Your task to perform on an android device: toggle priority inbox in the gmail app Image 0: 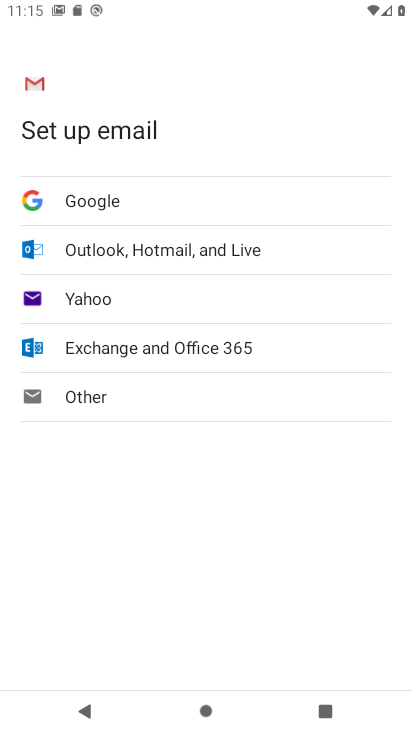
Step 0: press home button
Your task to perform on an android device: toggle priority inbox in the gmail app Image 1: 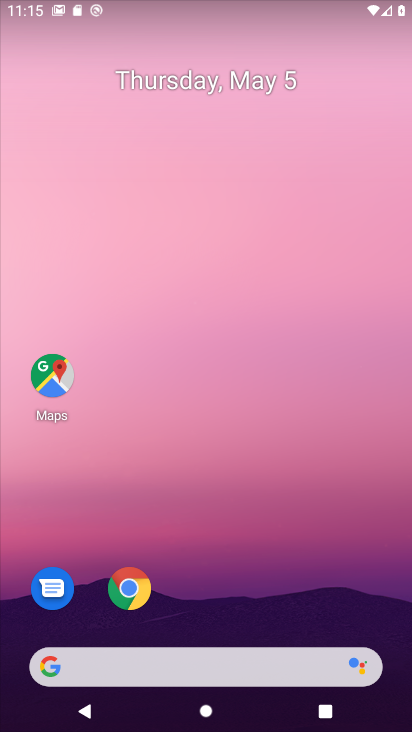
Step 1: drag from (208, 670) to (392, 121)
Your task to perform on an android device: toggle priority inbox in the gmail app Image 2: 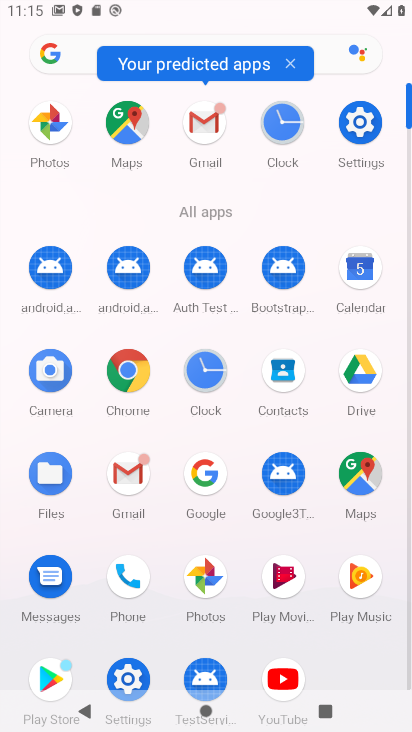
Step 2: click (200, 132)
Your task to perform on an android device: toggle priority inbox in the gmail app Image 3: 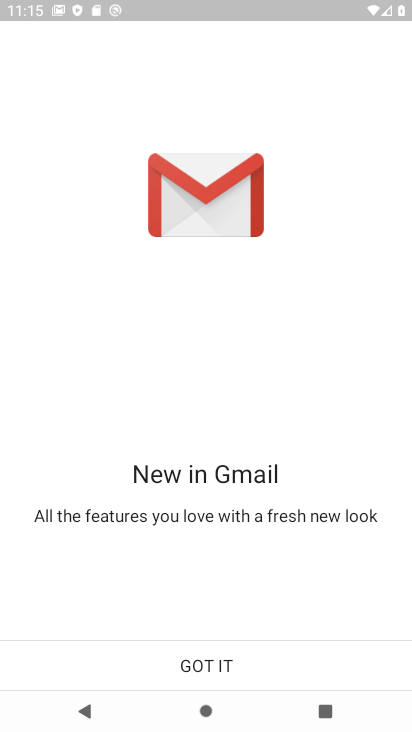
Step 3: click (191, 662)
Your task to perform on an android device: toggle priority inbox in the gmail app Image 4: 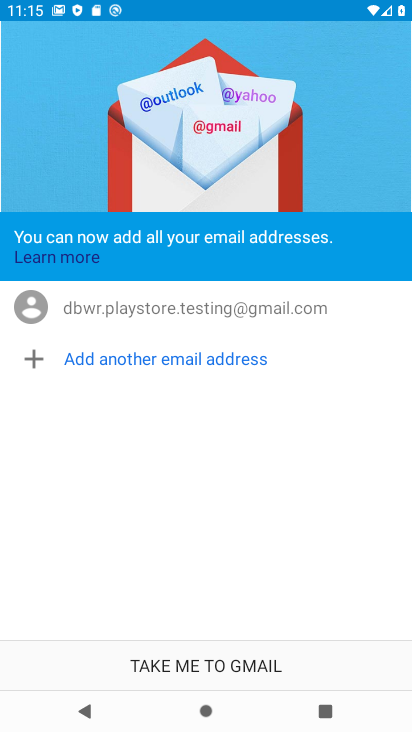
Step 4: click (196, 664)
Your task to perform on an android device: toggle priority inbox in the gmail app Image 5: 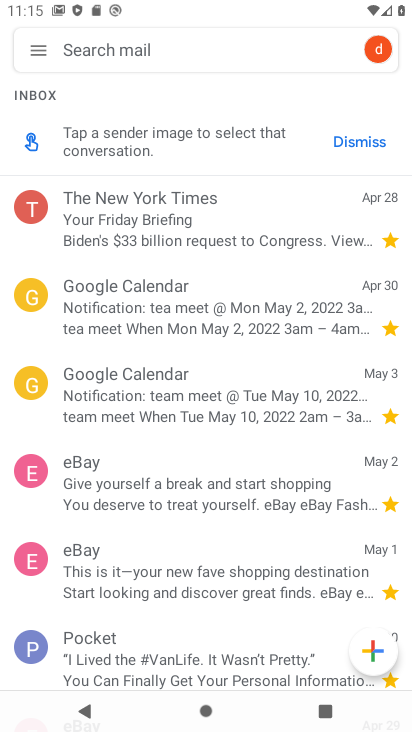
Step 5: click (36, 53)
Your task to perform on an android device: toggle priority inbox in the gmail app Image 6: 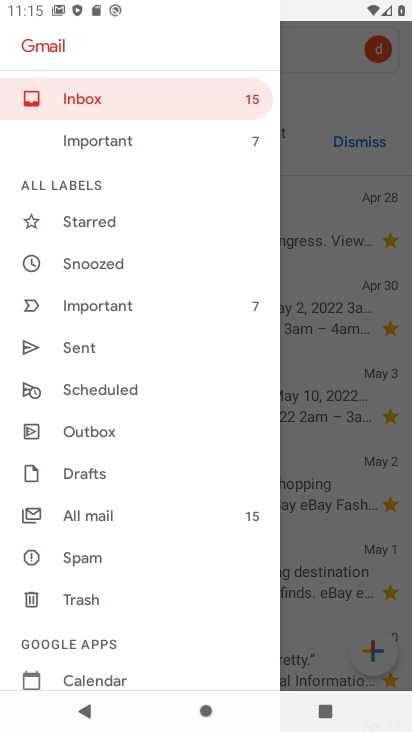
Step 6: drag from (150, 626) to (222, 237)
Your task to perform on an android device: toggle priority inbox in the gmail app Image 7: 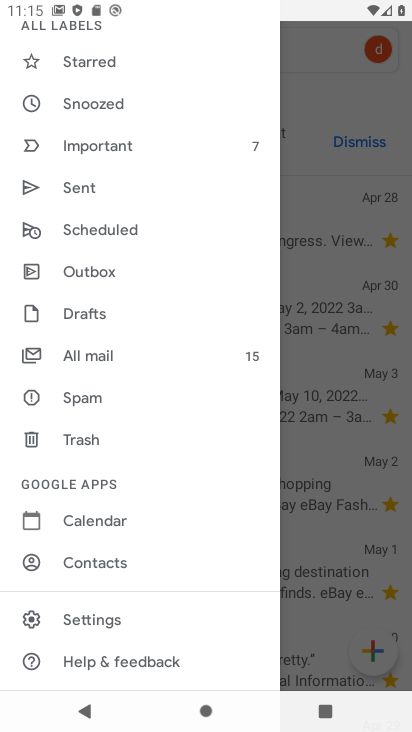
Step 7: click (85, 618)
Your task to perform on an android device: toggle priority inbox in the gmail app Image 8: 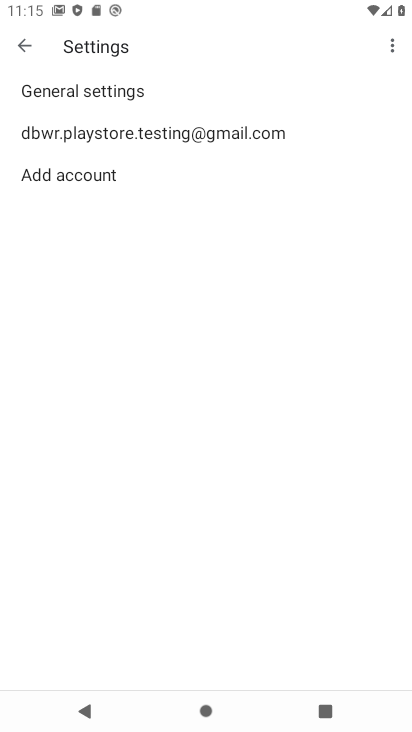
Step 8: click (190, 136)
Your task to perform on an android device: toggle priority inbox in the gmail app Image 9: 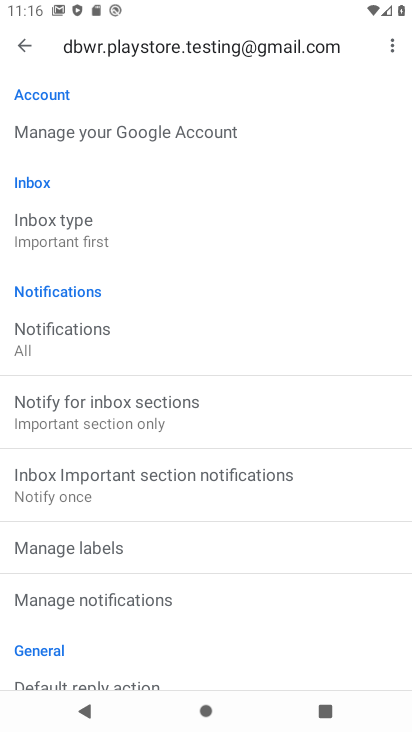
Step 9: click (80, 236)
Your task to perform on an android device: toggle priority inbox in the gmail app Image 10: 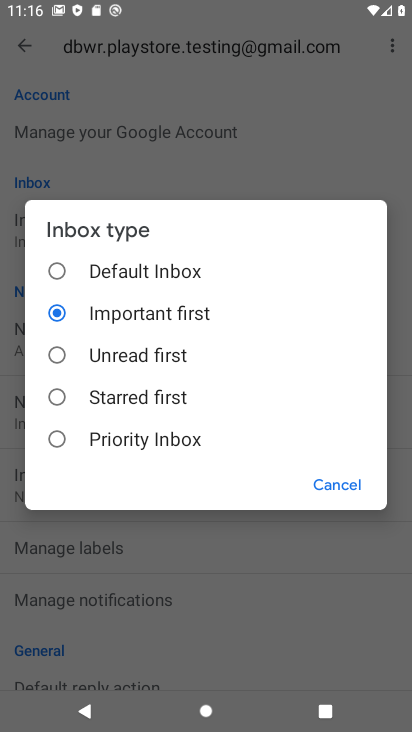
Step 10: click (52, 437)
Your task to perform on an android device: toggle priority inbox in the gmail app Image 11: 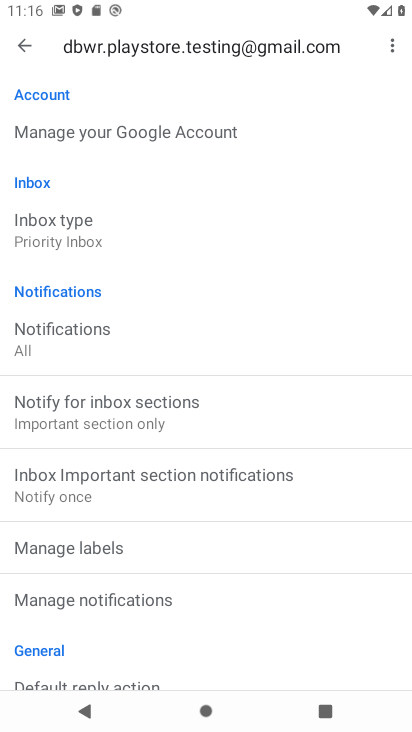
Step 11: task complete